Your task to perform on an android device: open app "eBay: The shopping marketplace" (install if not already installed) and go to login screen Image 0: 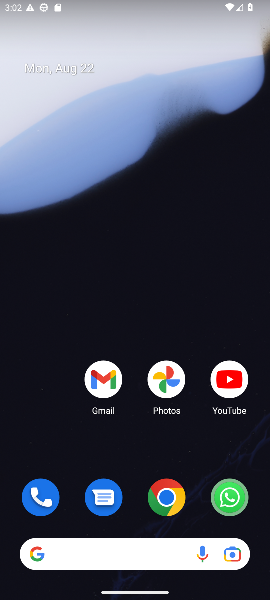
Step 0: drag from (144, 447) to (129, 40)
Your task to perform on an android device: open app "eBay: The shopping marketplace" (install if not already installed) and go to login screen Image 1: 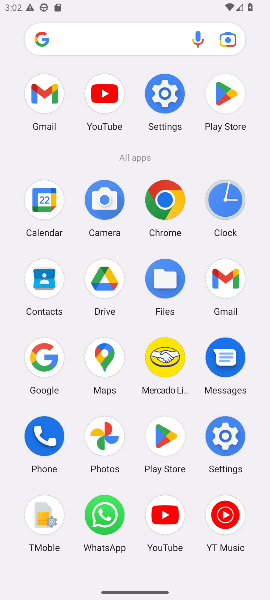
Step 1: click (211, 92)
Your task to perform on an android device: open app "eBay: The shopping marketplace" (install if not already installed) and go to login screen Image 2: 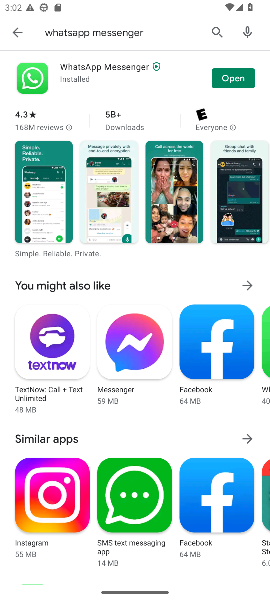
Step 2: click (217, 34)
Your task to perform on an android device: open app "eBay: The shopping marketplace" (install if not already installed) and go to login screen Image 3: 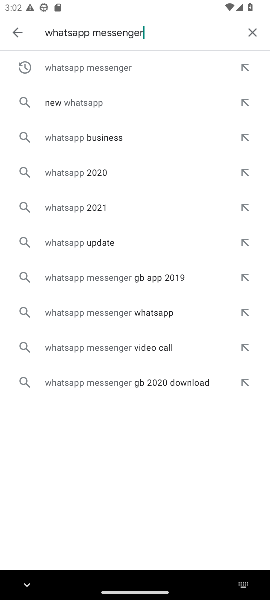
Step 3: click (245, 33)
Your task to perform on an android device: open app "eBay: The shopping marketplace" (install if not already installed) and go to login screen Image 4: 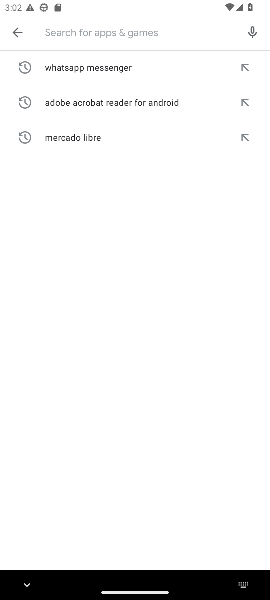
Step 4: type "eBay: The shopping marketplace"
Your task to perform on an android device: open app "eBay: The shopping marketplace" (install if not already installed) and go to login screen Image 5: 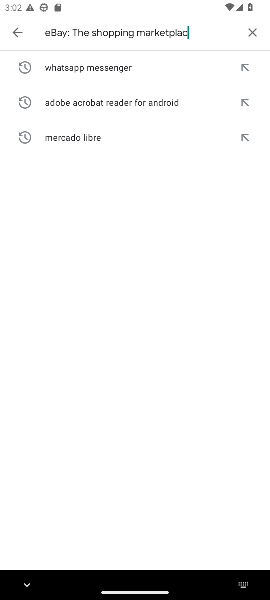
Step 5: type ""
Your task to perform on an android device: open app "eBay: The shopping marketplace" (install if not already installed) and go to login screen Image 6: 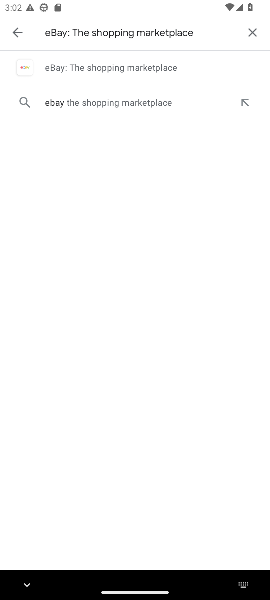
Step 6: click (110, 65)
Your task to perform on an android device: open app "eBay: The shopping marketplace" (install if not already installed) and go to login screen Image 7: 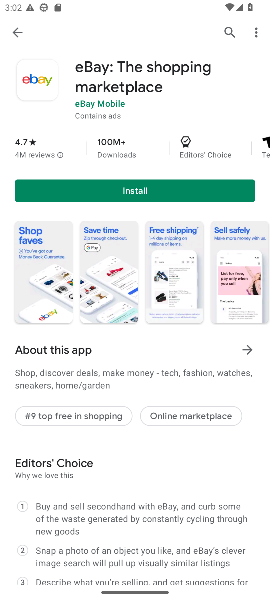
Step 7: click (157, 197)
Your task to perform on an android device: open app "eBay: The shopping marketplace" (install if not already installed) and go to login screen Image 8: 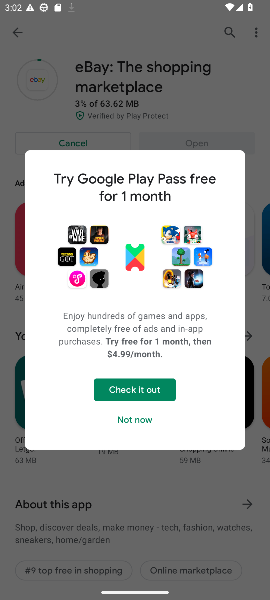
Step 8: click (145, 424)
Your task to perform on an android device: open app "eBay: The shopping marketplace" (install if not already installed) and go to login screen Image 9: 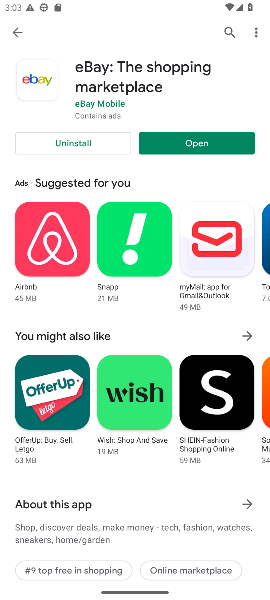
Step 9: click (182, 151)
Your task to perform on an android device: open app "eBay: The shopping marketplace" (install if not already installed) and go to login screen Image 10: 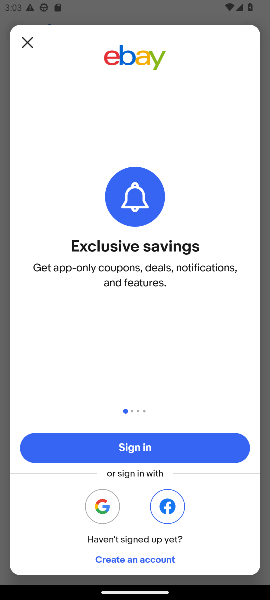
Step 10: task complete